Your task to perform on an android device: check storage Image 0: 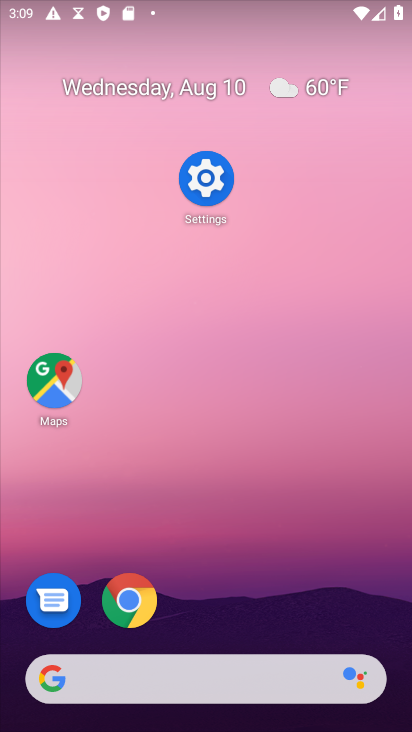
Step 0: press home button
Your task to perform on an android device: check storage Image 1: 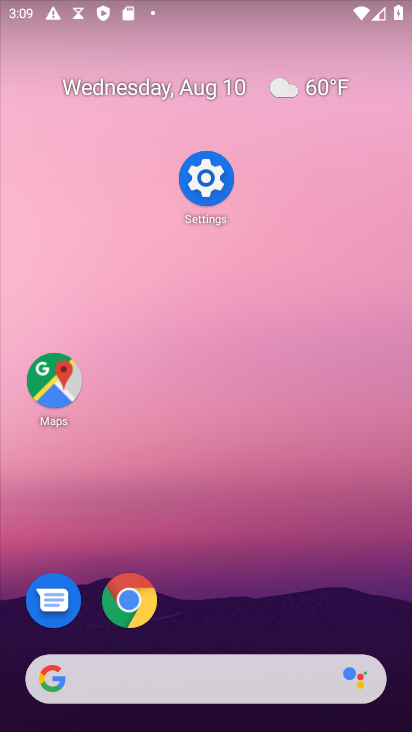
Step 1: click (183, 193)
Your task to perform on an android device: check storage Image 2: 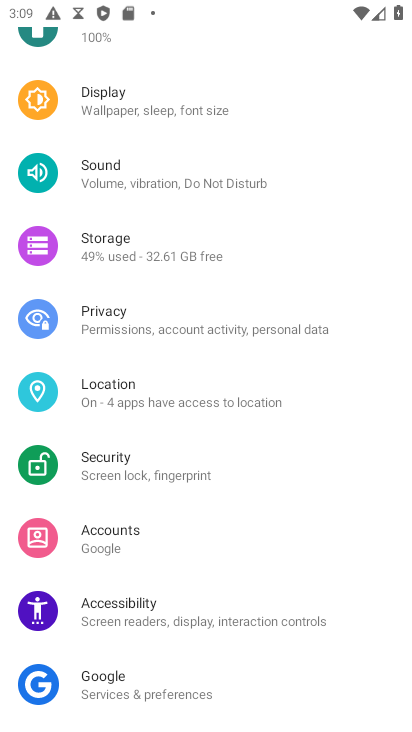
Step 2: click (96, 256)
Your task to perform on an android device: check storage Image 3: 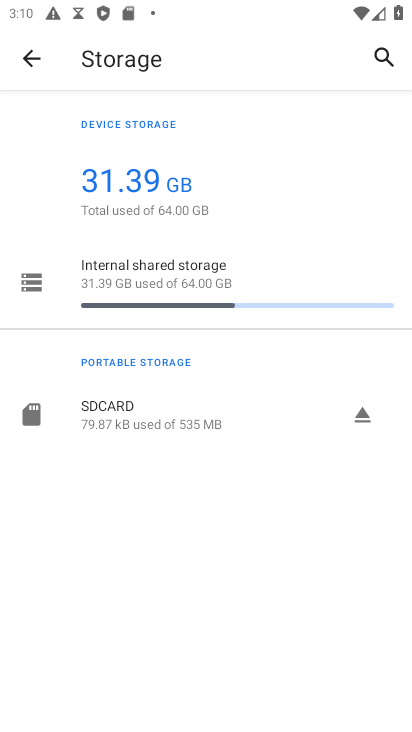
Step 3: task complete